Your task to perform on an android device: create a new album in the google photos Image 0: 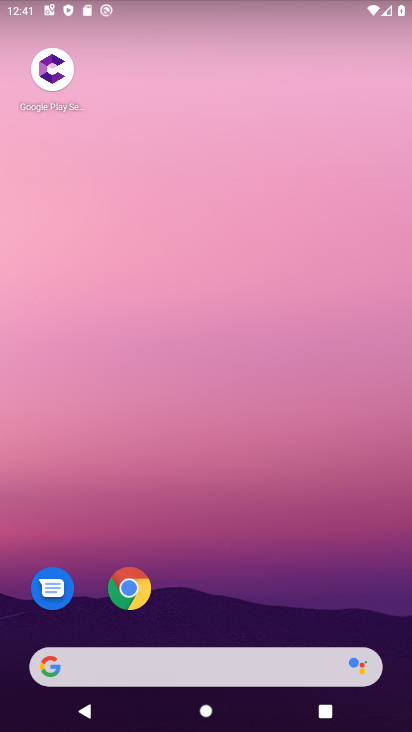
Step 0: drag from (186, 647) to (296, 140)
Your task to perform on an android device: create a new album in the google photos Image 1: 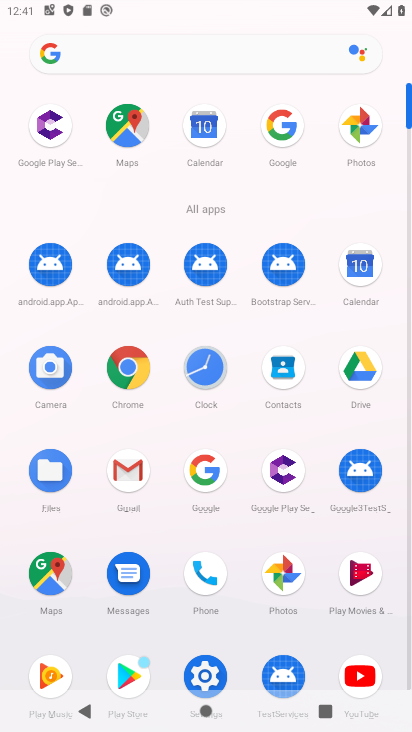
Step 1: click (290, 580)
Your task to perform on an android device: create a new album in the google photos Image 2: 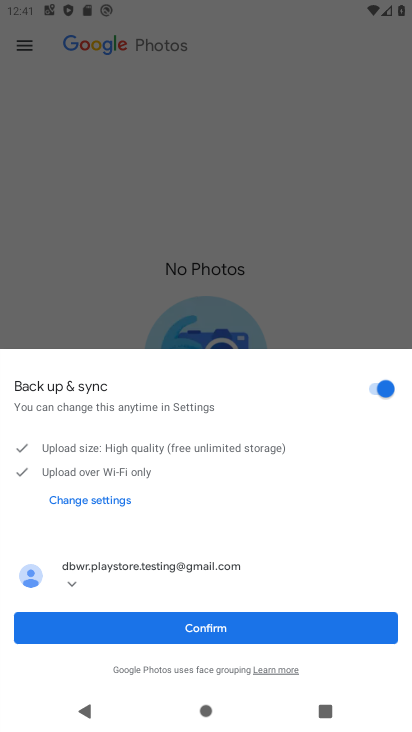
Step 2: click (207, 653)
Your task to perform on an android device: create a new album in the google photos Image 3: 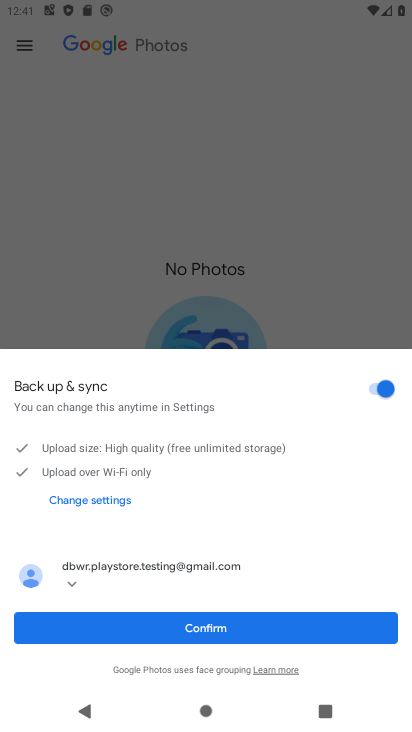
Step 3: click (212, 633)
Your task to perform on an android device: create a new album in the google photos Image 4: 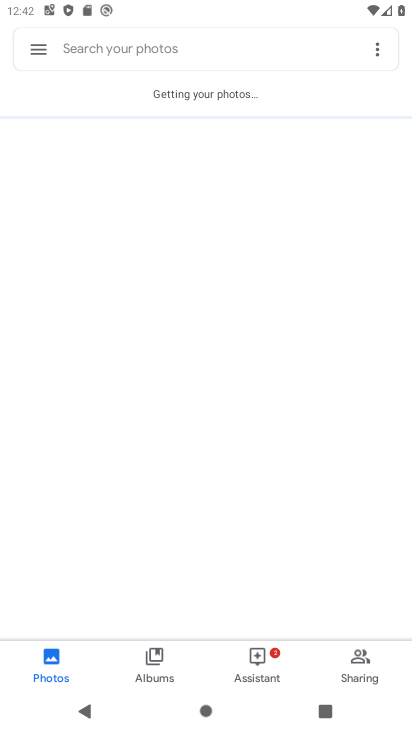
Step 4: click (373, 38)
Your task to perform on an android device: create a new album in the google photos Image 5: 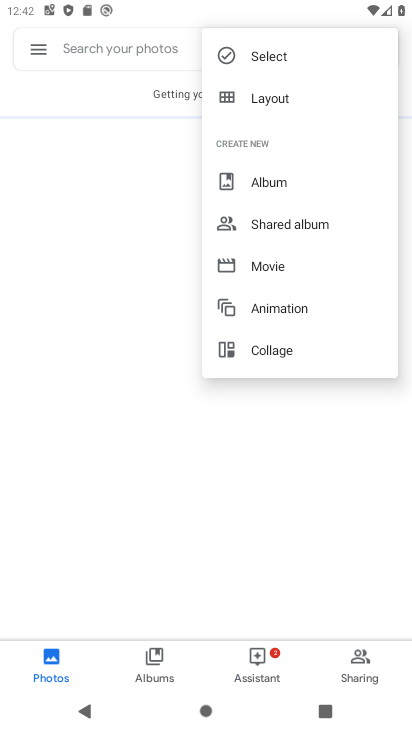
Step 5: click (304, 188)
Your task to perform on an android device: create a new album in the google photos Image 6: 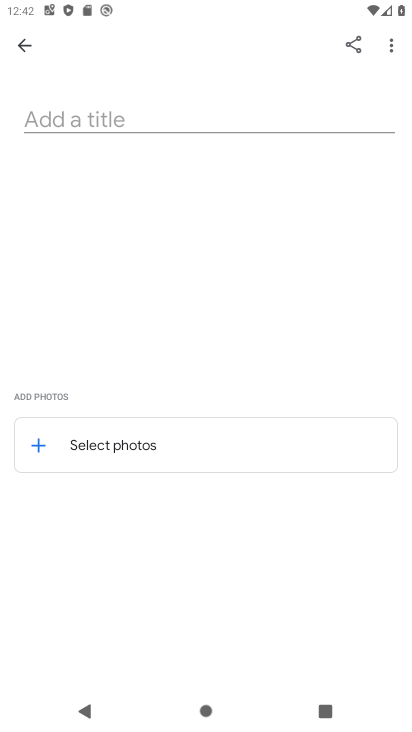
Step 6: click (145, 112)
Your task to perform on an android device: create a new album in the google photos Image 7: 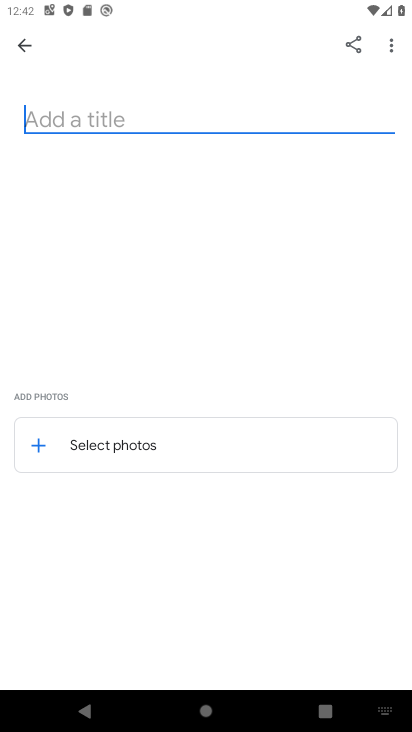
Step 7: type "xxxxxxxxxxxxxxxxxx"
Your task to perform on an android device: create a new album in the google photos Image 8: 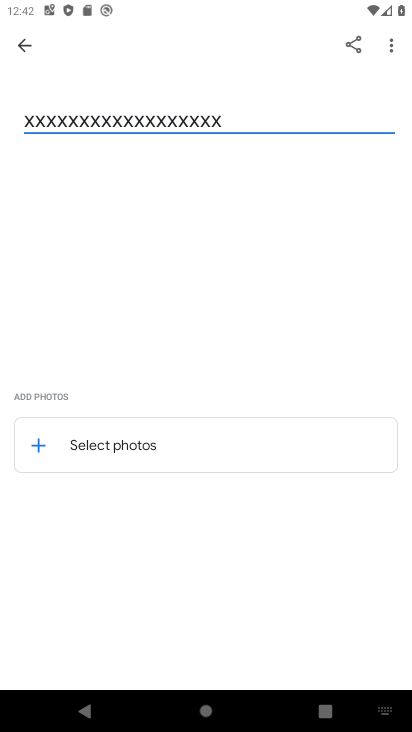
Step 8: click (207, 455)
Your task to perform on an android device: create a new album in the google photos Image 9: 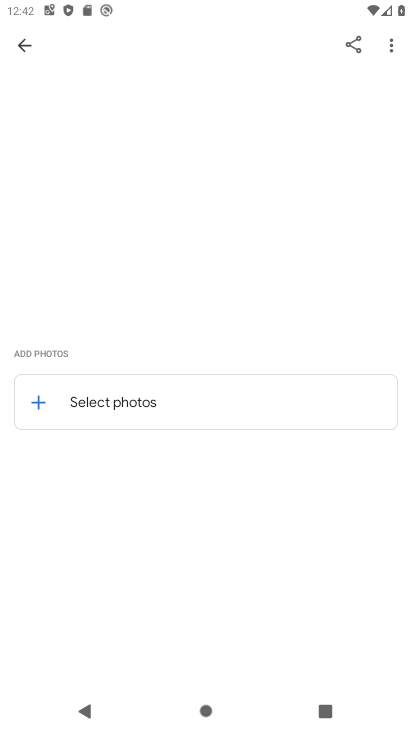
Step 9: click (223, 396)
Your task to perform on an android device: create a new album in the google photos Image 10: 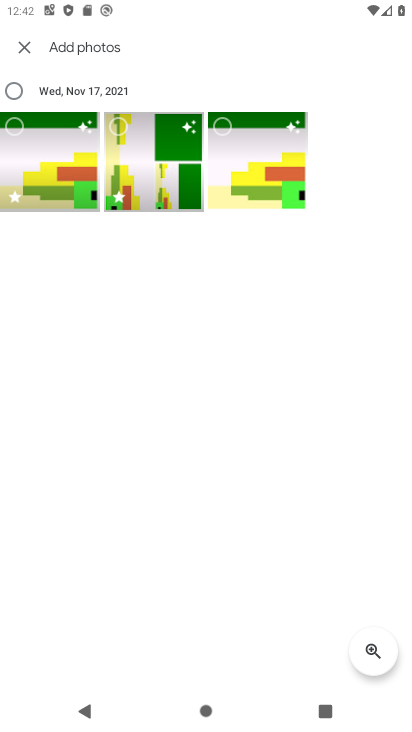
Step 10: click (16, 81)
Your task to perform on an android device: create a new album in the google photos Image 11: 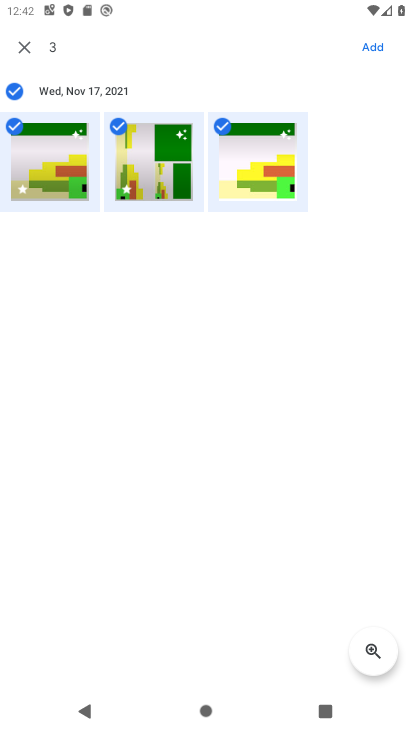
Step 11: click (370, 46)
Your task to perform on an android device: create a new album in the google photos Image 12: 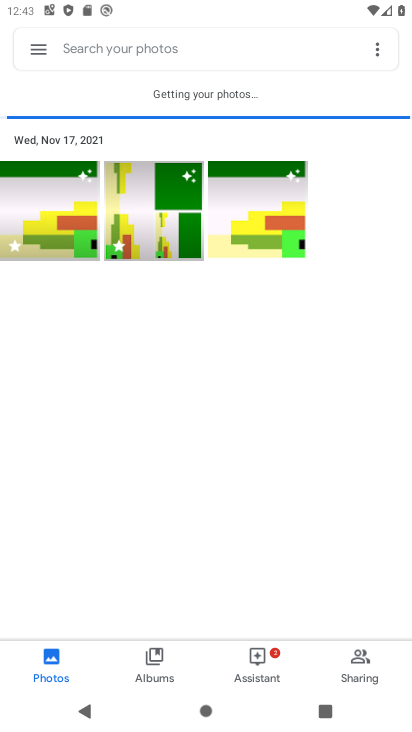
Step 12: click (379, 52)
Your task to perform on an android device: create a new album in the google photos Image 13: 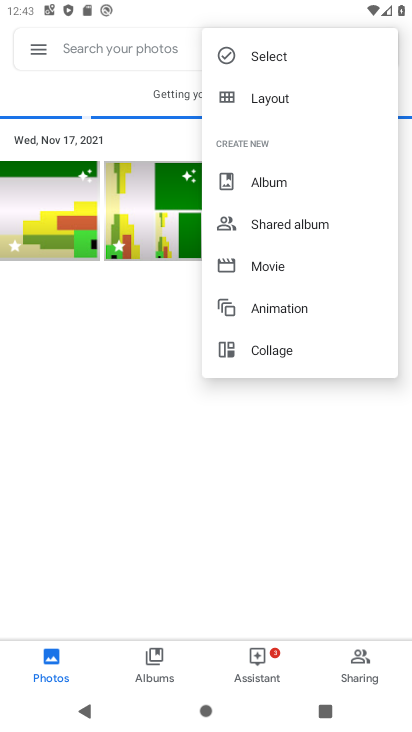
Step 13: click (318, 193)
Your task to perform on an android device: create a new album in the google photos Image 14: 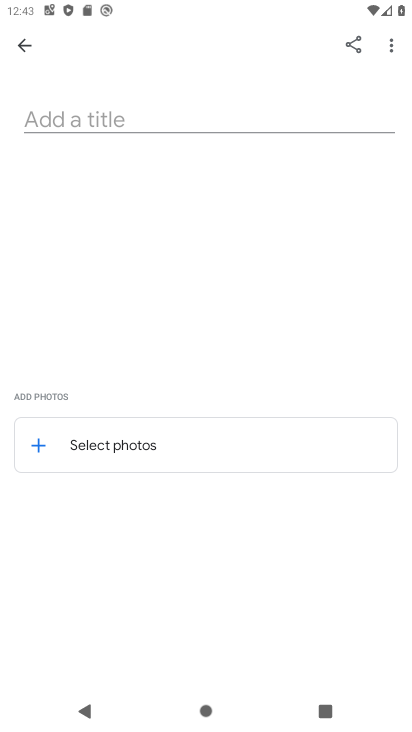
Step 14: click (180, 117)
Your task to perform on an android device: create a new album in the google photos Image 15: 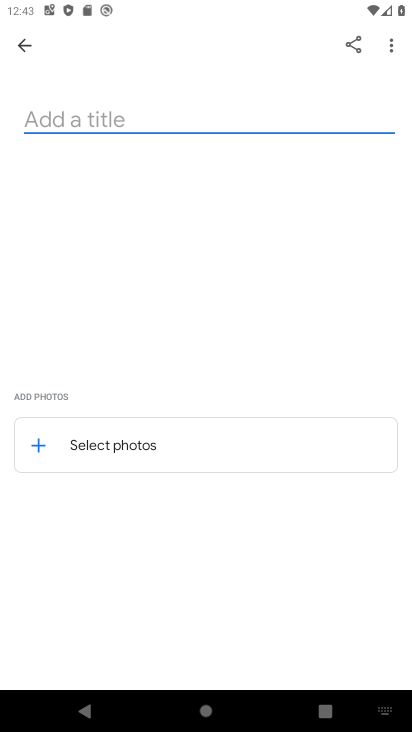
Step 15: type "xxxxxxxxxxxxxxxx"
Your task to perform on an android device: create a new album in the google photos Image 16: 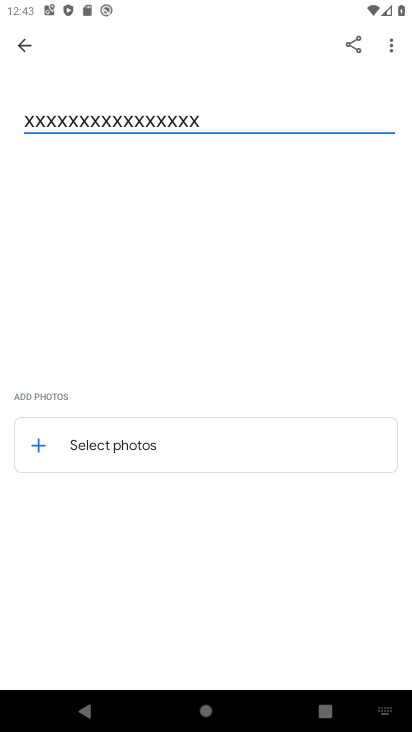
Step 16: click (284, 443)
Your task to perform on an android device: create a new album in the google photos Image 17: 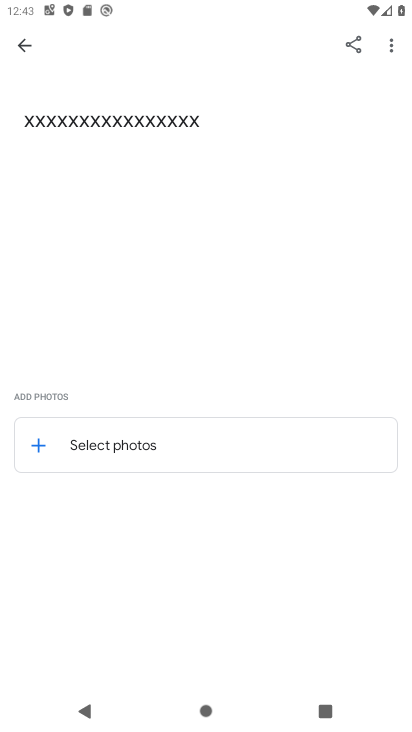
Step 17: click (262, 448)
Your task to perform on an android device: create a new album in the google photos Image 18: 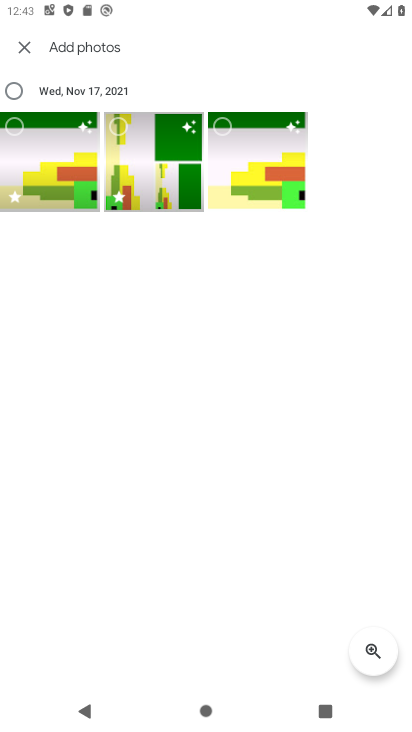
Step 18: click (15, 88)
Your task to perform on an android device: create a new album in the google photos Image 19: 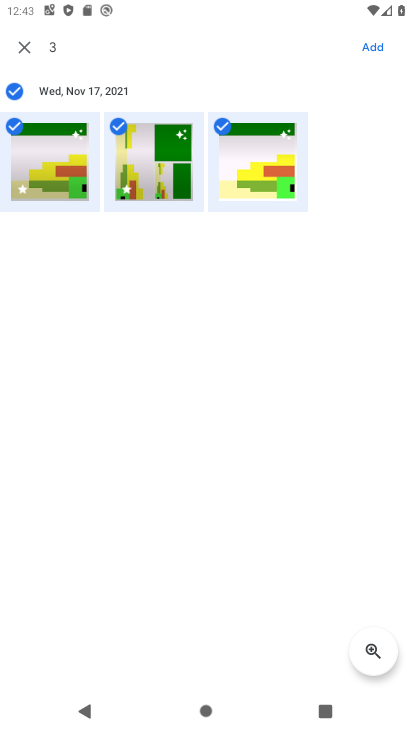
Step 19: click (372, 48)
Your task to perform on an android device: create a new album in the google photos Image 20: 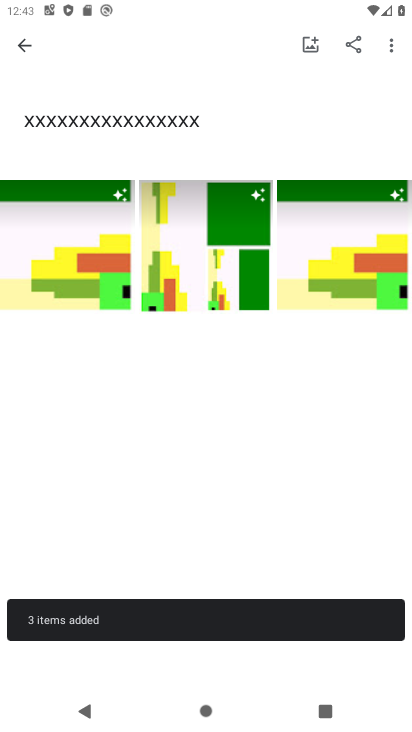
Step 20: task complete